Your task to perform on an android device: Open a new incognito window in the chrome app Image 0: 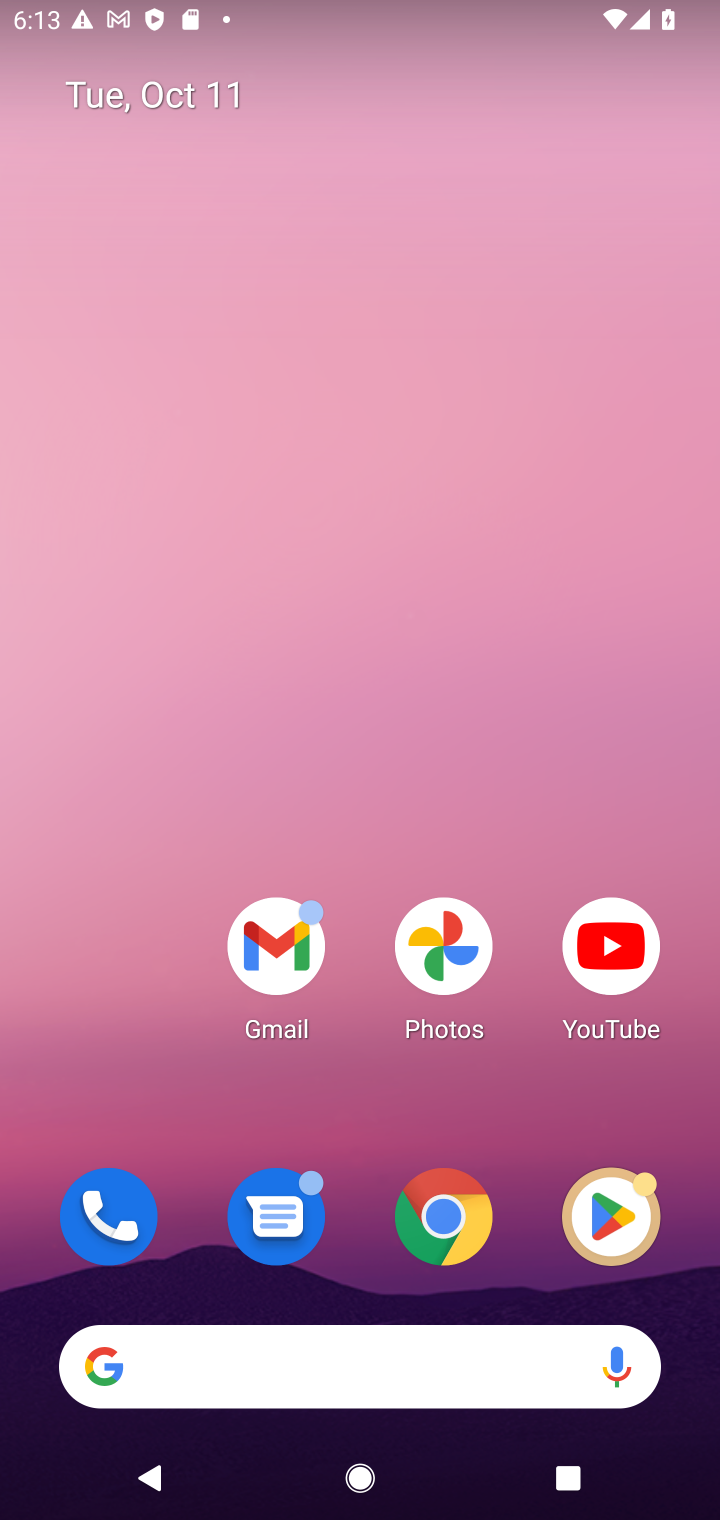
Step 0: click (446, 1221)
Your task to perform on an android device: Open a new incognito window in the chrome app Image 1: 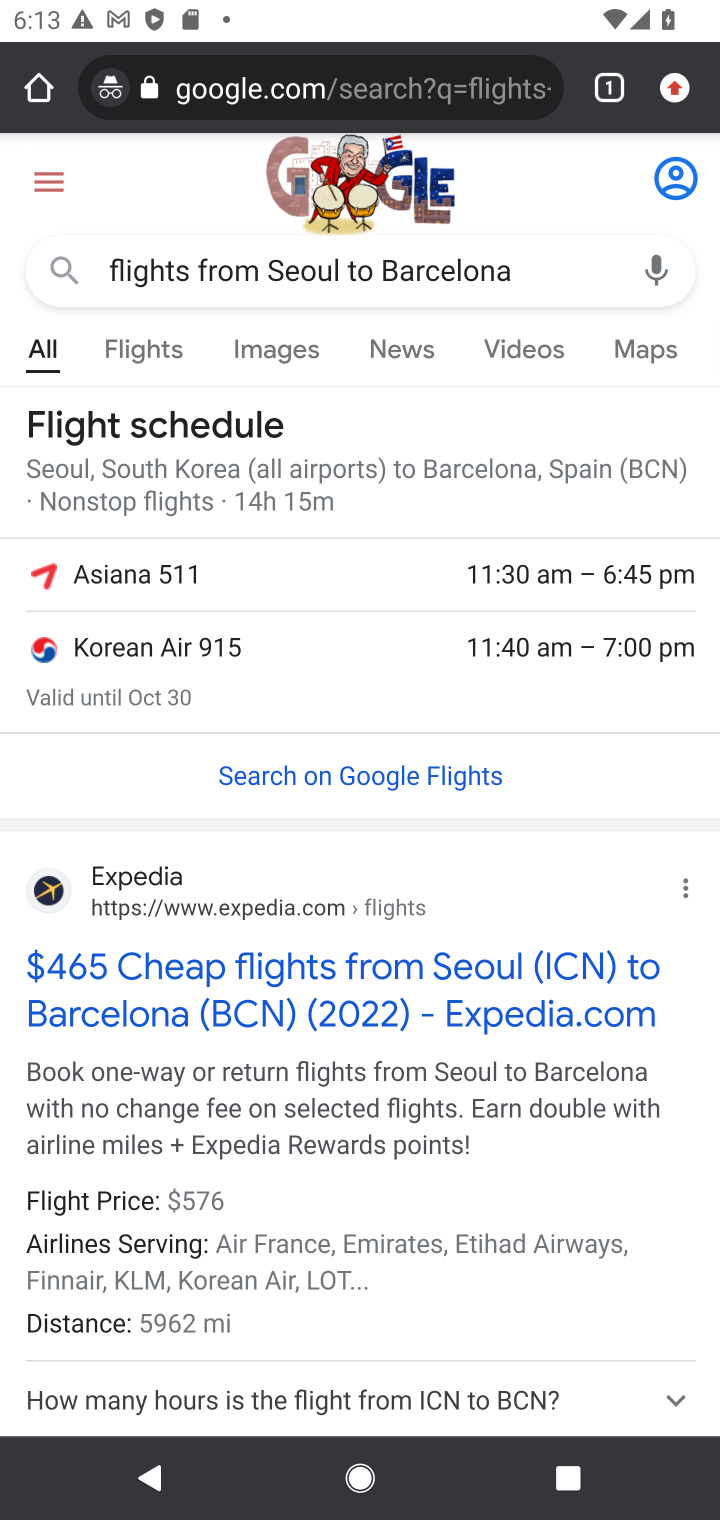
Step 1: click (672, 94)
Your task to perform on an android device: Open a new incognito window in the chrome app Image 2: 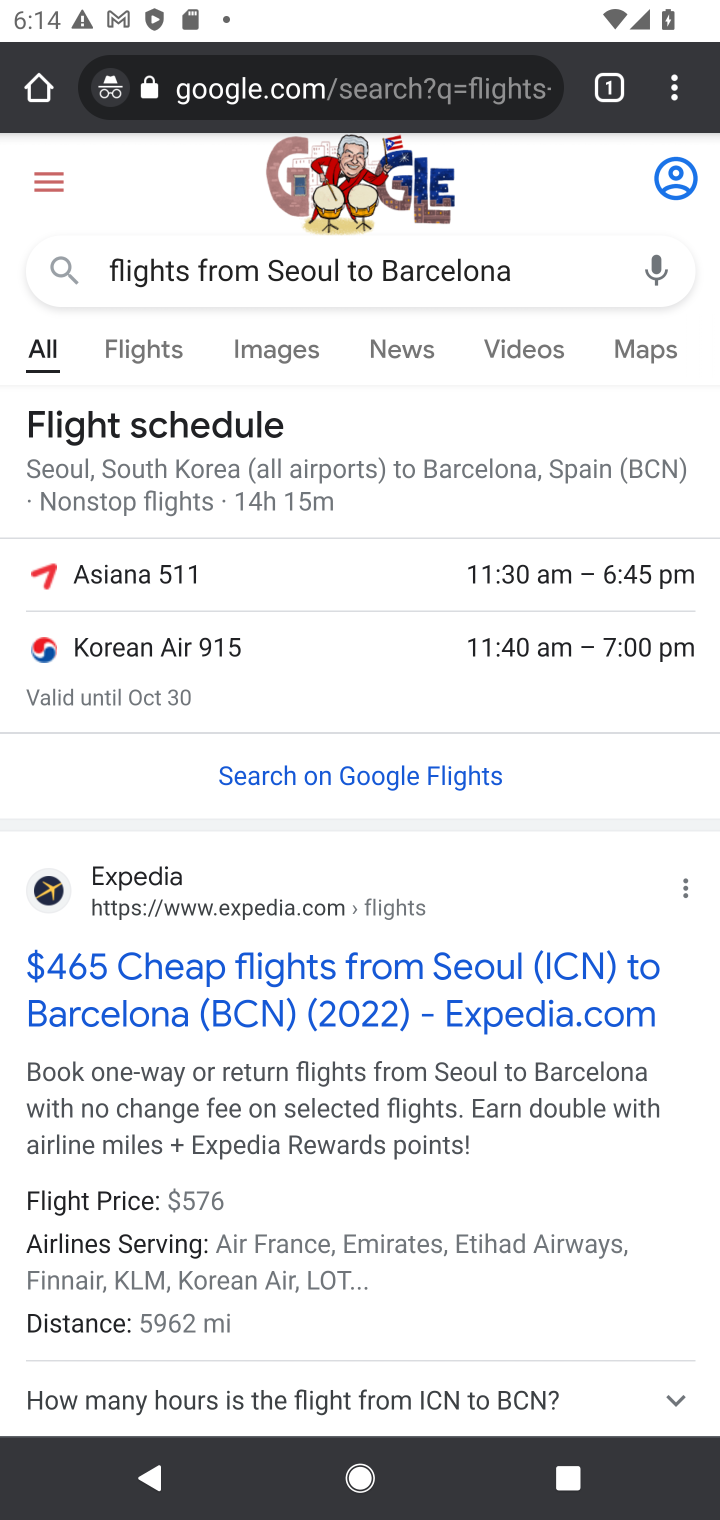
Step 2: click (675, 96)
Your task to perform on an android device: Open a new incognito window in the chrome app Image 3: 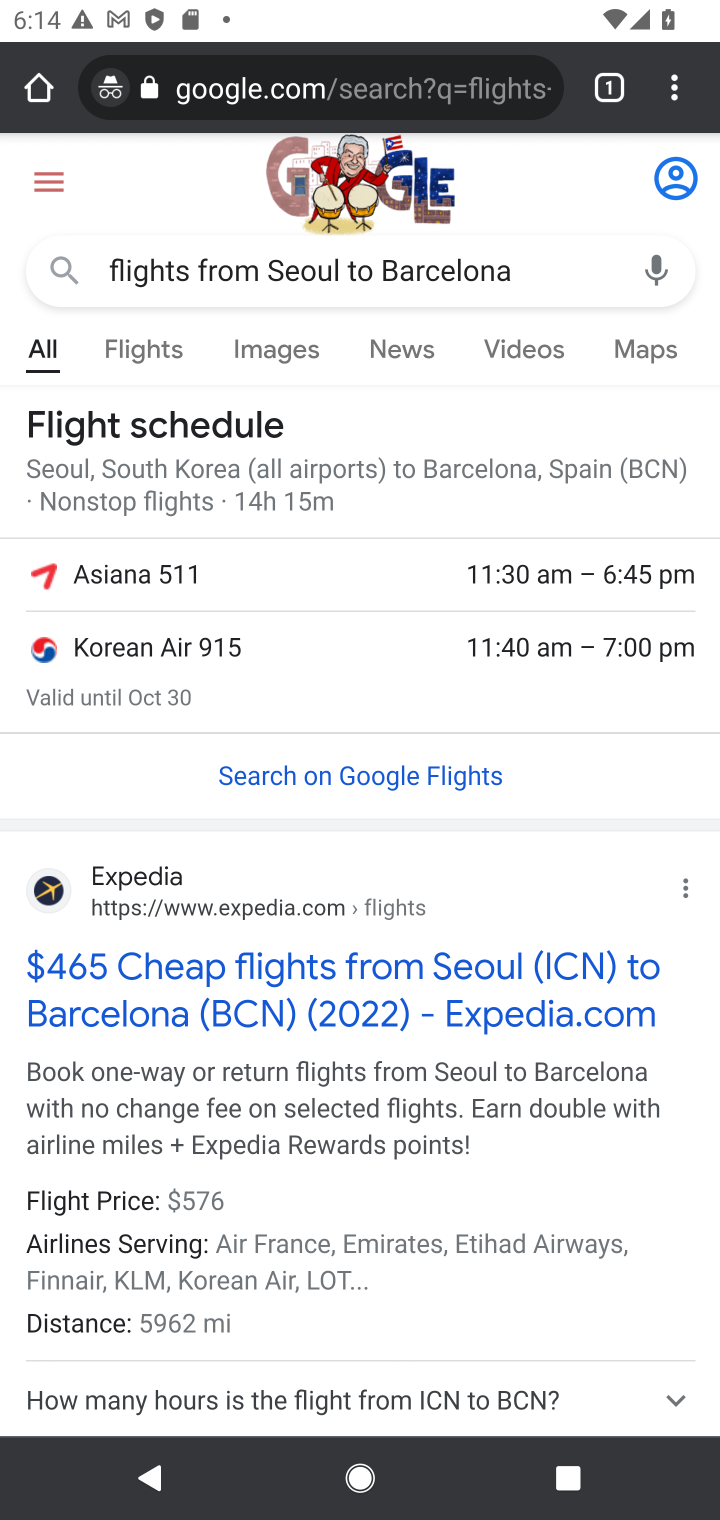
Step 3: task complete